Your task to perform on an android device: Open Google Chrome Image 0: 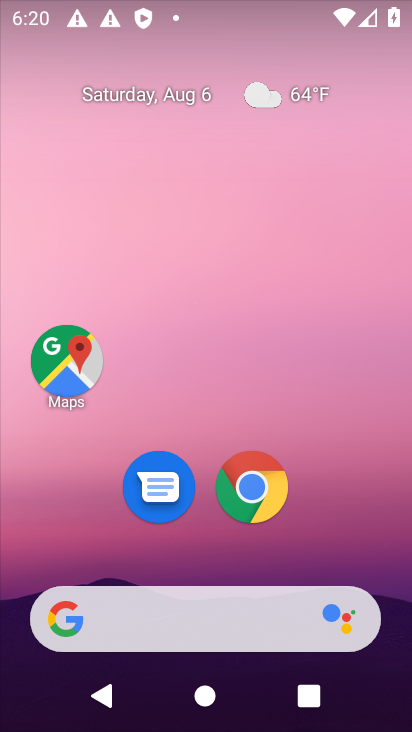
Step 0: click (266, 488)
Your task to perform on an android device: Open Google Chrome Image 1: 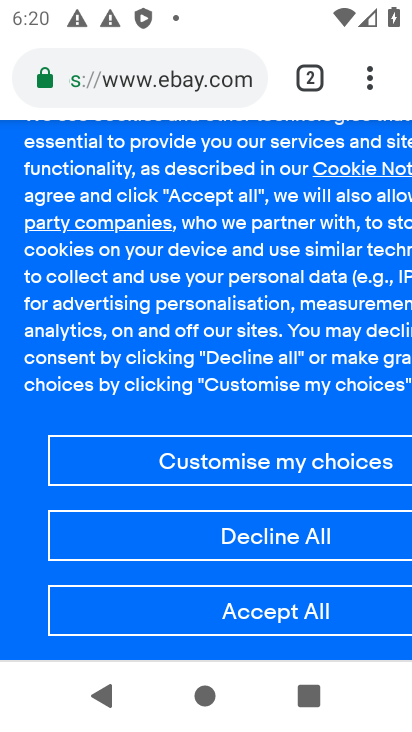
Step 1: task complete